Your task to perform on an android device: Go to calendar. Show me events next week Image 0: 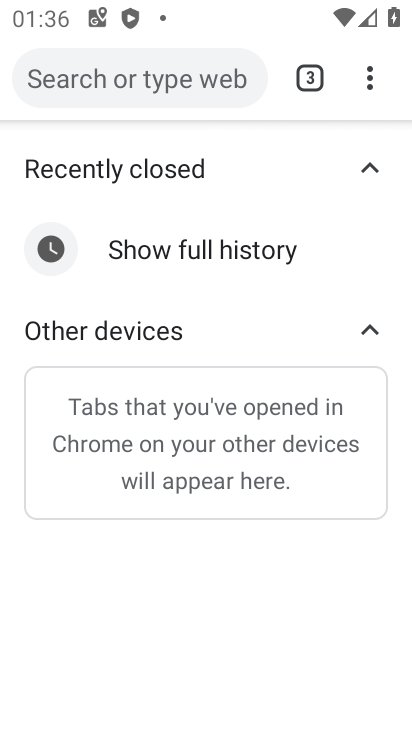
Step 0: press home button
Your task to perform on an android device: Go to calendar. Show me events next week Image 1: 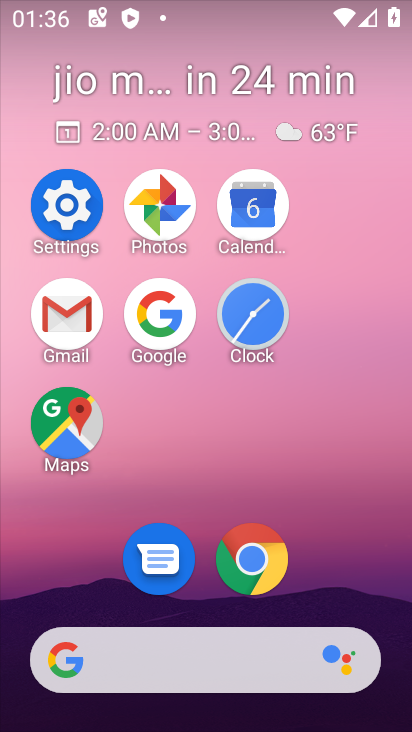
Step 1: click (241, 209)
Your task to perform on an android device: Go to calendar. Show me events next week Image 2: 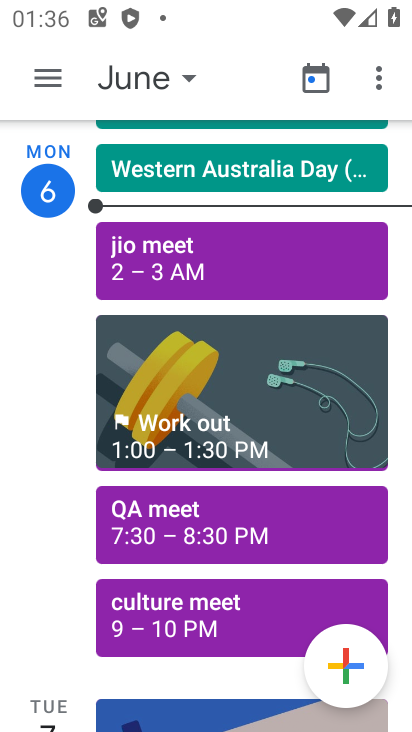
Step 2: click (170, 83)
Your task to perform on an android device: Go to calendar. Show me events next week Image 3: 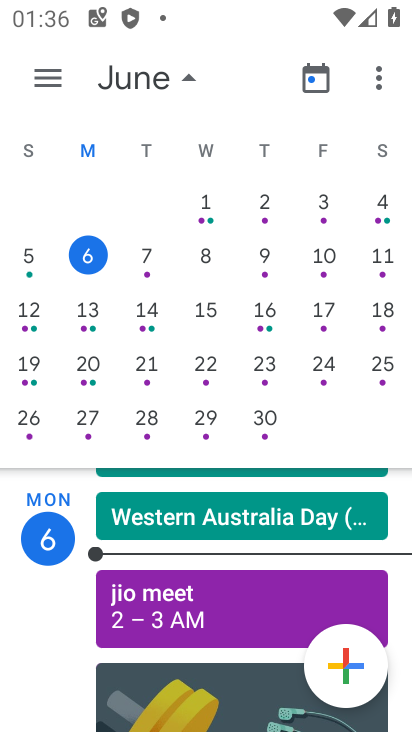
Step 3: click (37, 84)
Your task to perform on an android device: Go to calendar. Show me events next week Image 4: 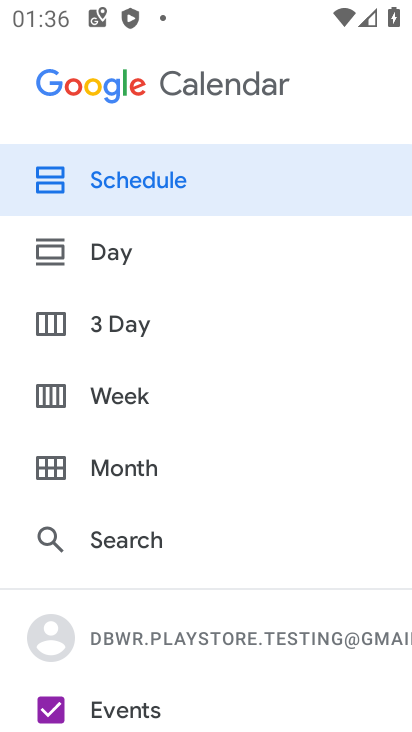
Step 4: click (133, 359)
Your task to perform on an android device: Go to calendar. Show me events next week Image 5: 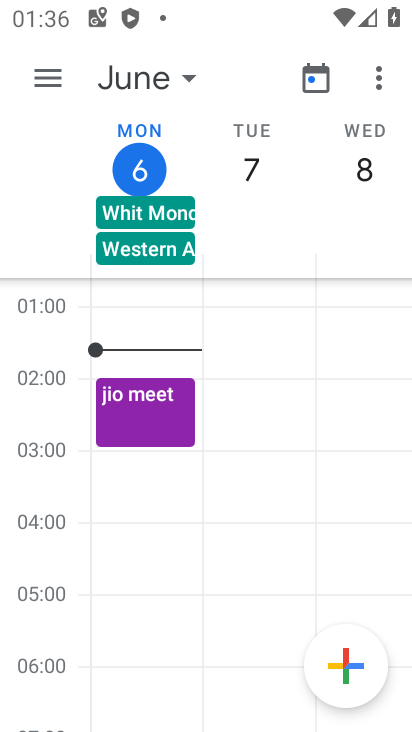
Step 5: click (65, 75)
Your task to perform on an android device: Go to calendar. Show me events next week Image 6: 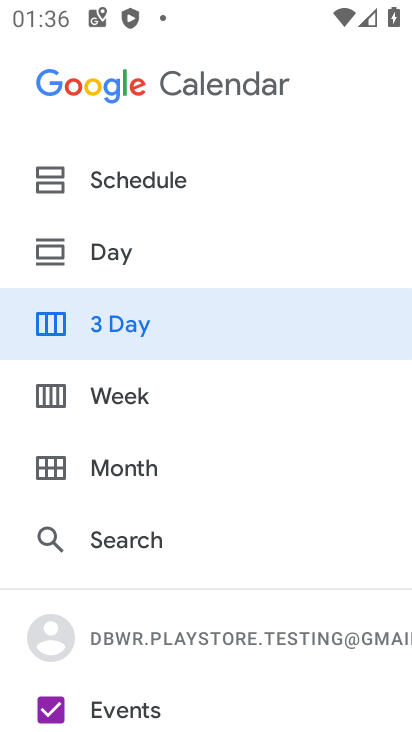
Step 6: click (151, 394)
Your task to perform on an android device: Go to calendar. Show me events next week Image 7: 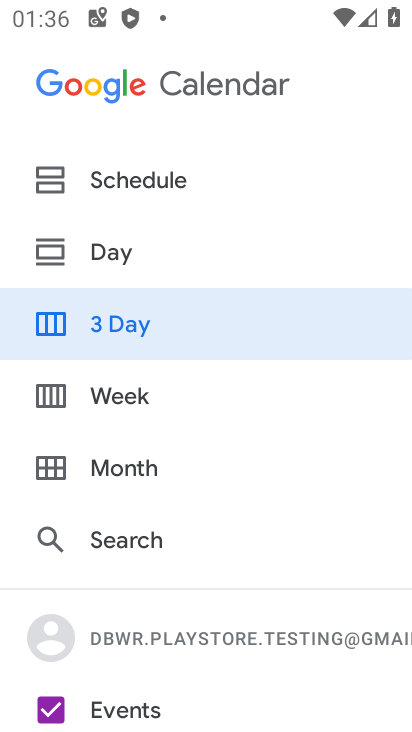
Step 7: click (135, 398)
Your task to perform on an android device: Go to calendar. Show me events next week Image 8: 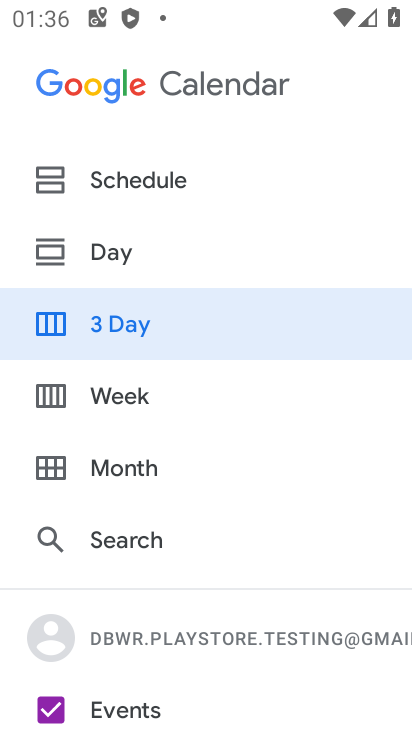
Step 8: click (105, 396)
Your task to perform on an android device: Go to calendar. Show me events next week Image 9: 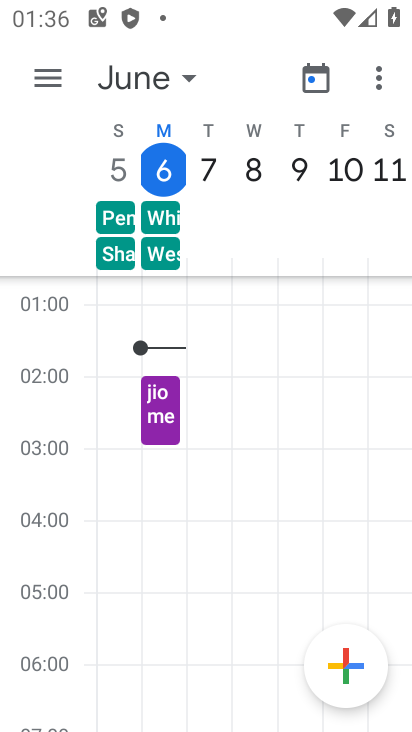
Step 9: task complete